Your task to perform on an android device: change the clock display to analog Image 0: 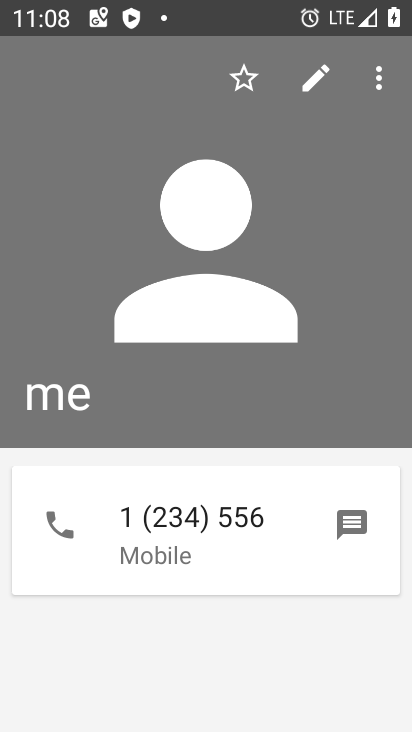
Step 0: press home button
Your task to perform on an android device: change the clock display to analog Image 1: 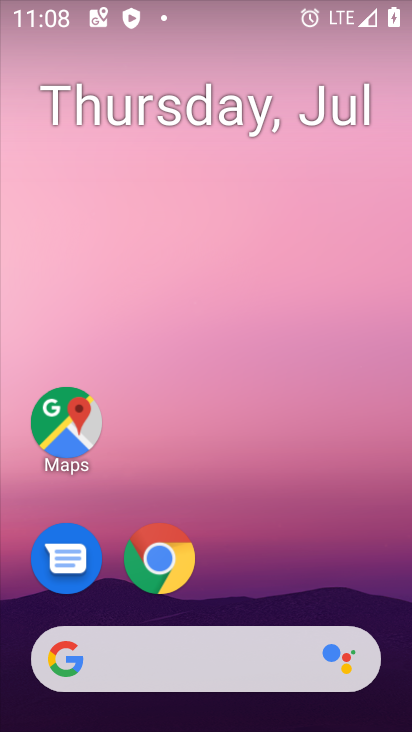
Step 1: drag from (370, 573) to (365, 92)
Your task to perform on an android device: change the clock display to analog Image 2: 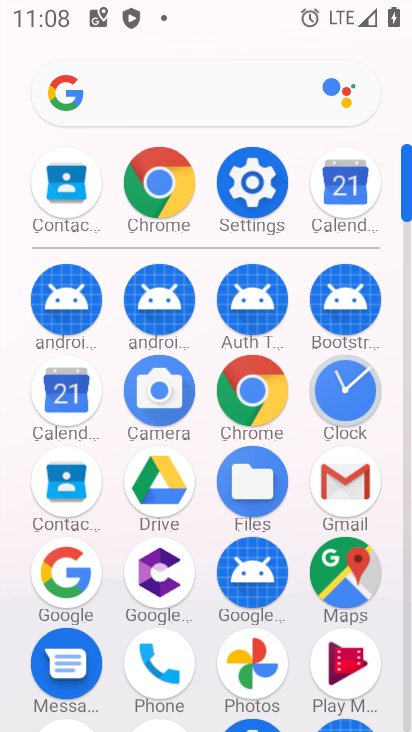
Step 2: click (364, 393)
Your task to perform on an android device: change the clock display to analog Image 3: 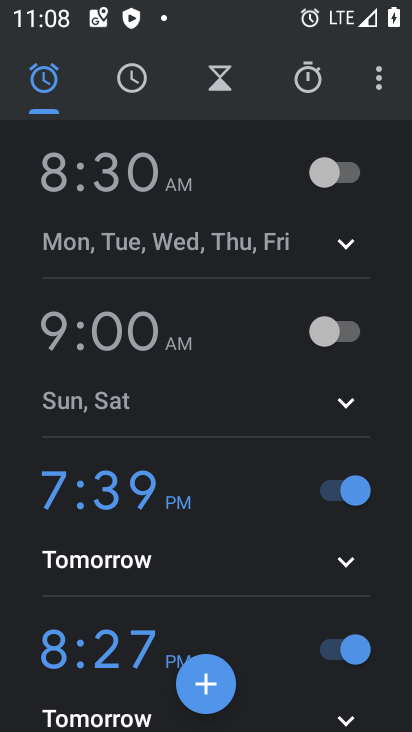
Step 3: click (380, 88)
Your task to perform on an android device: change the clock display to analog Image 4: 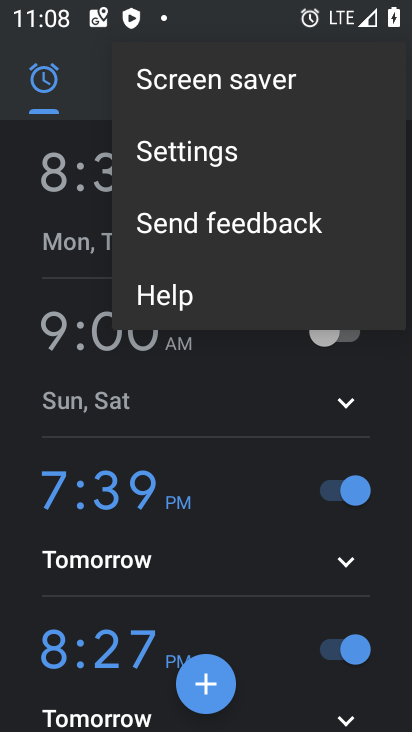
Step 4: click (242, 154)
Your task to perform on an android device: change the clock display to analog Image 5: 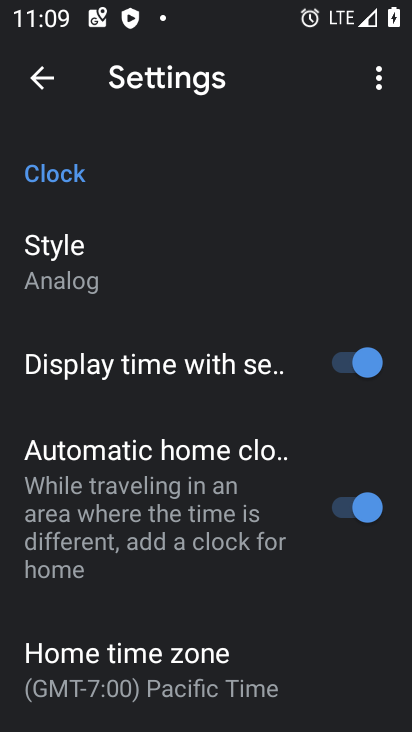
Step 5: drag from (271, 461) to (274, 328)
Your task to perform on an android device: change the clock display to analog Image 6: 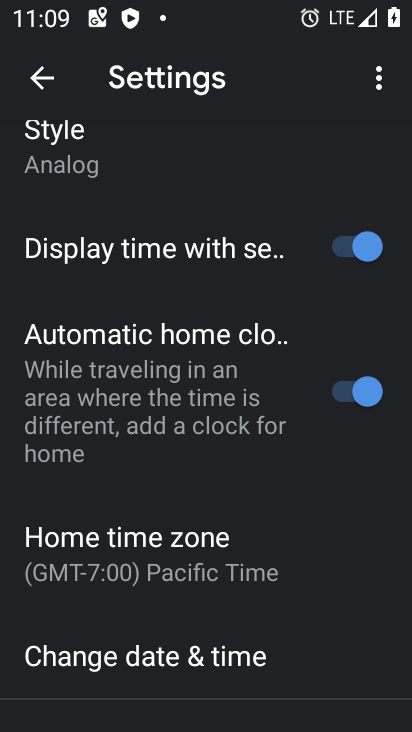
Step 6: drag from (298, 561) to (311, 413)
Your task to perform on an android device: change the clock display to analog Image 7: 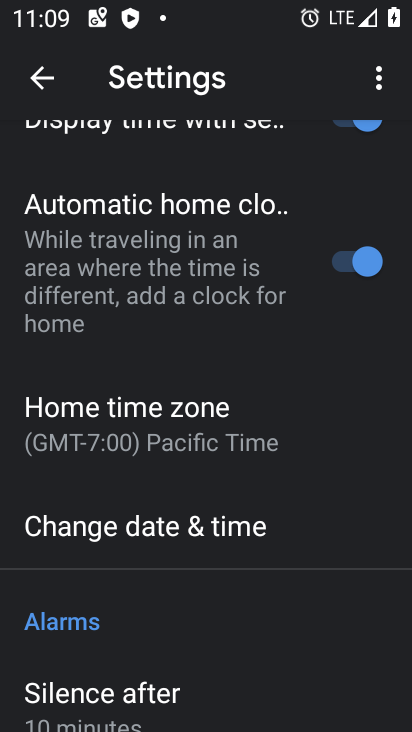
Step 7: drag from (315, 494) to (315, 384)
Your task to perform on an android device: change the clock display to analog Image 8: 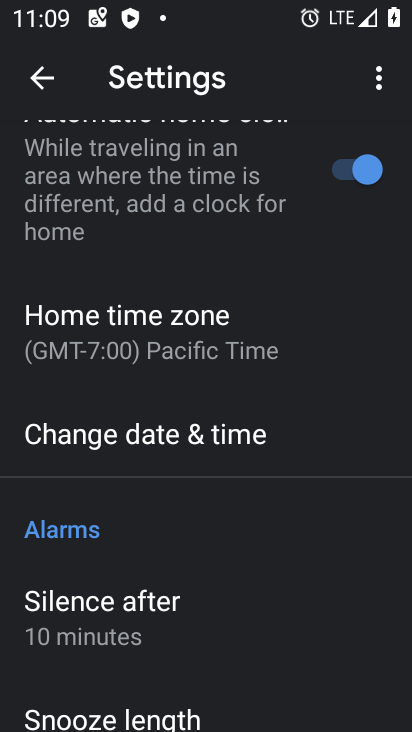
Step 8: drag from (259, 492) to (260, 364)
Your task to perform on an android device: change the clock display to analog Image 9: 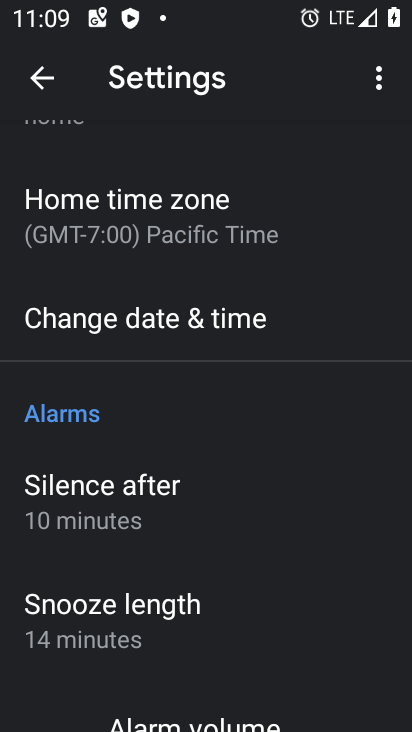
Step 9: drag from (293, 498) to (294, 403)
Your task to perform on an android device: change the clock display to analog Image 10: 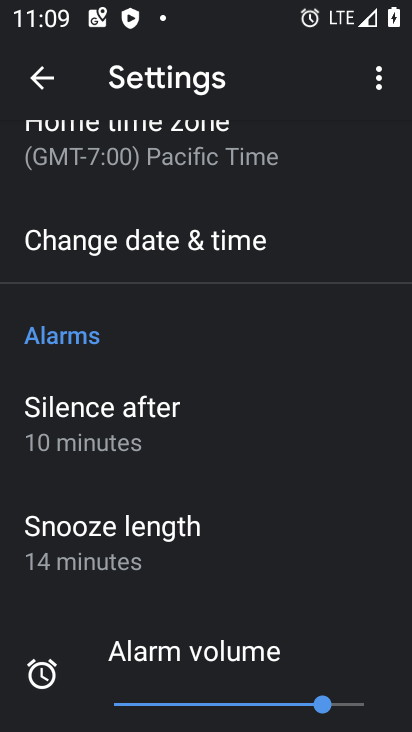
Step 10: drag from (320, 271) to (333, 400)
Your task to perform on an android device: change the clock display to analog Image 11: 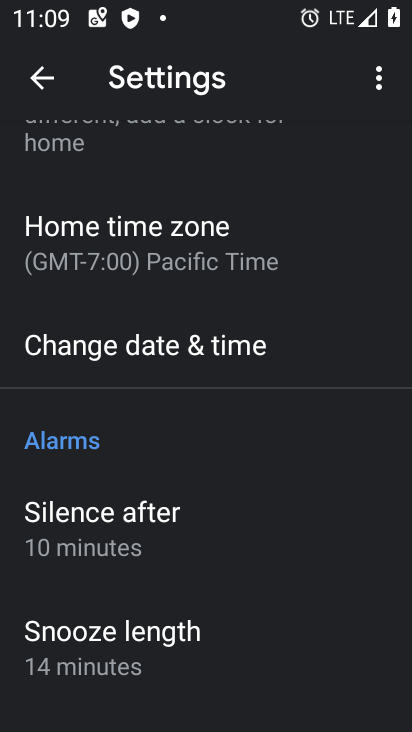
Step 11: drag from (330, 274) to (329, 413)
Your task to perform on an android device: change the clock display to analog Image 12: 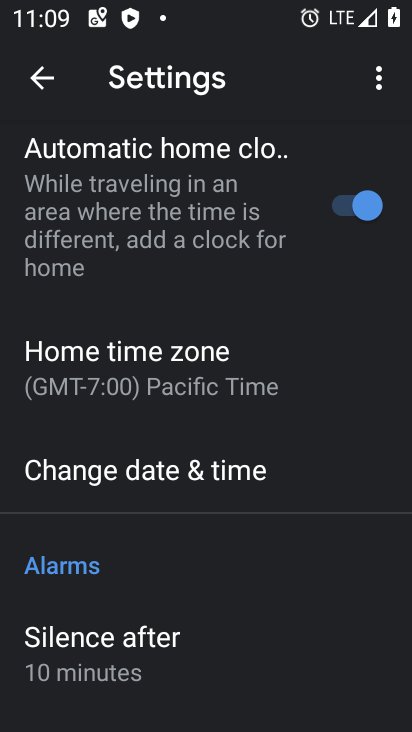
Step 12: drag from (293, 186) to (301, 415)
Your task to perform on an android device: change the clock display to analog Image 13: 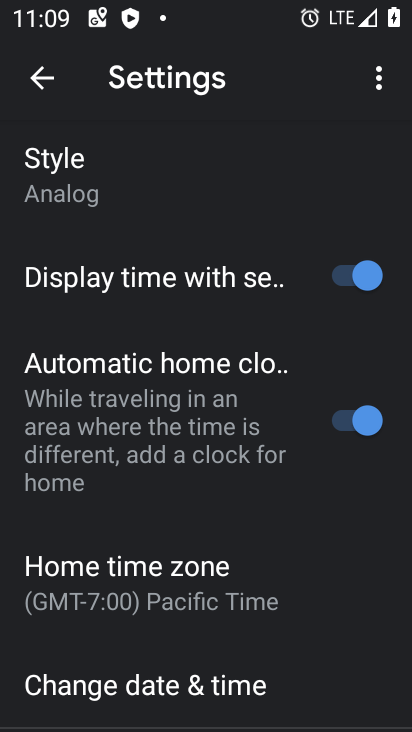
Step 13: click (168, 191)
Your task to perform on an android device: change the clock display to analog Image 14: 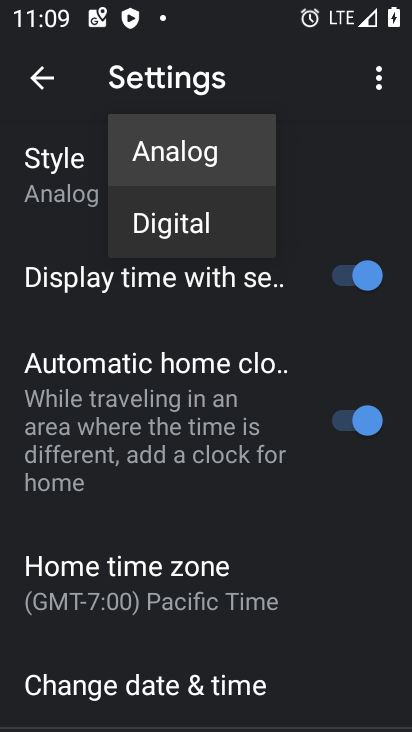
Step 14: task complete